Your task to perform on an android device: Go to Wikipedia Image 0: 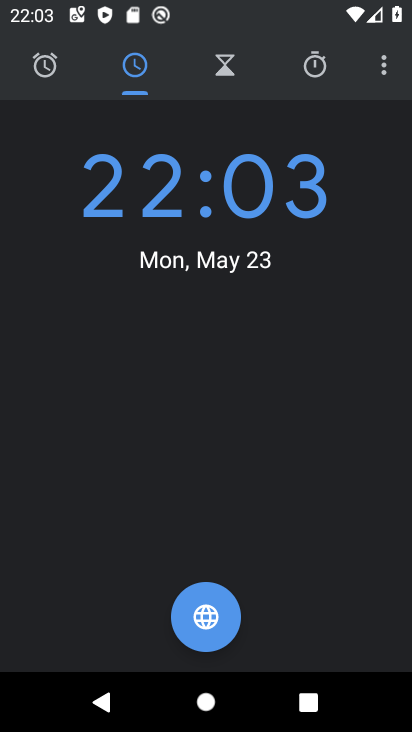
Step 0: press home button
Your task to perform on an android device: Go to Wikipedia Image 1: 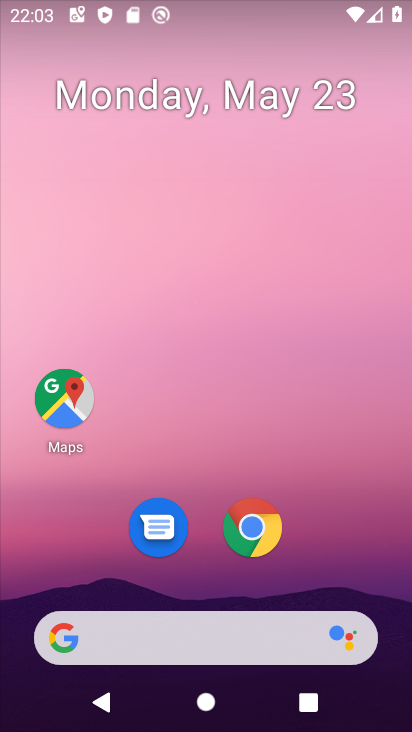
Step 1: click (246, 526)
Your task to perform on an android device: Go to Wikipedia Image 2: 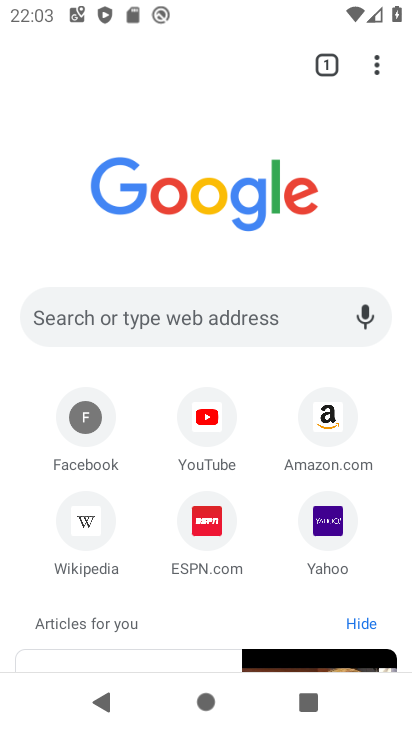
Step 2: click (78, 545)
Your task to perform on an android device: Go to Wikipedia Image 3: 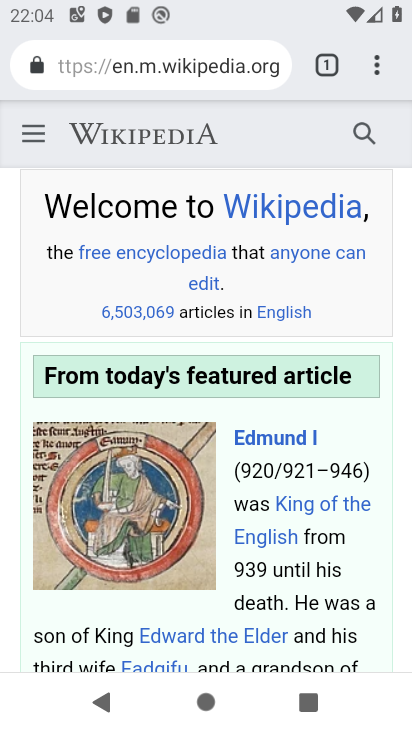
Step 3: task complete